Your task to perform on an android device: Search for Italian restaurants on Maps Image 0: 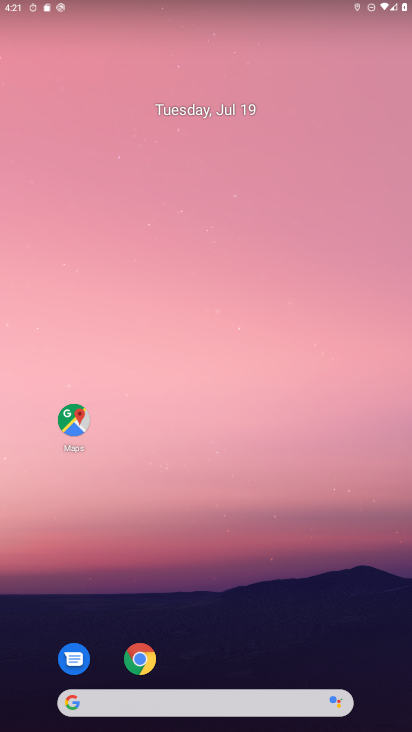
Step 0: drag from (253, 577) to (277, 7)
Your task to perform on an android device: Search for Italian restaurants on Maps Image 1: 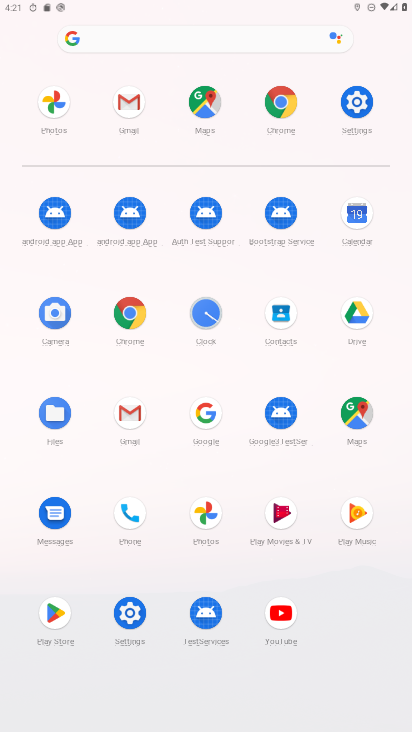
Step 1: click (360, 424)
Your task to perform on an android device: Search for Italian restaurants on Maps Image 2: 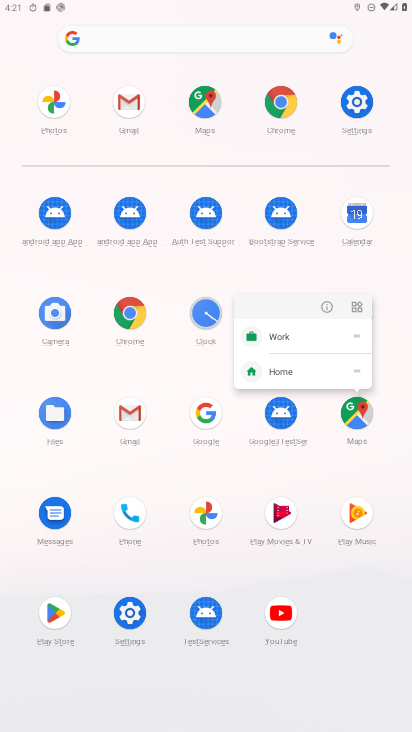
Step 2: click (360, 423)
Your task to perform on an android device: Search for Italian restaurants on Maps Image 3: 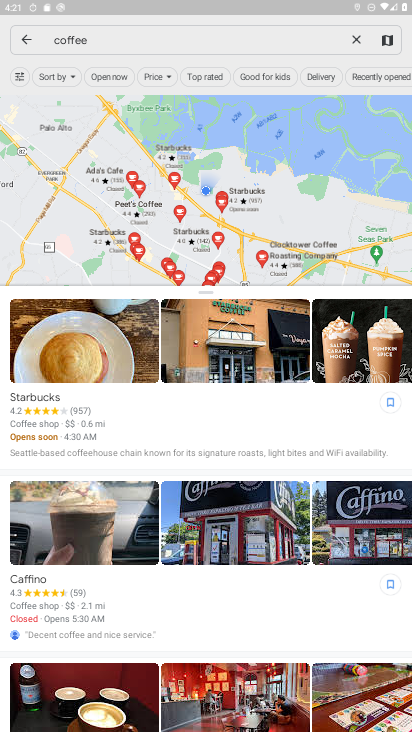
Step 3: click (359, 41)
Your task to perform on an android device: Search for Italian restaurants on Maps Image 4: 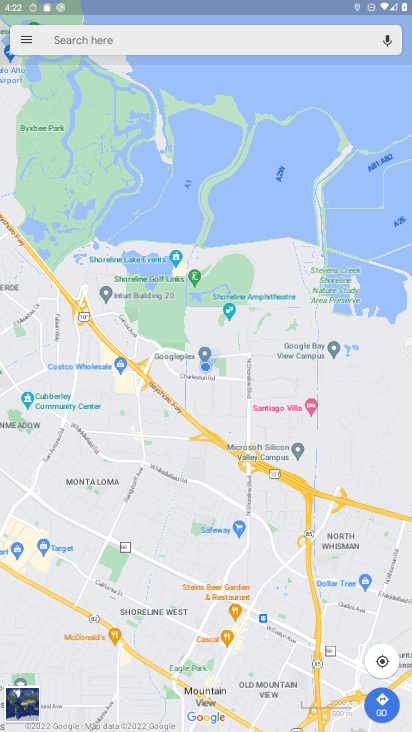
Step 4: click (219, 36)
Your task to perform on an android device: Search for Italian restaurants on Maps Image 5: 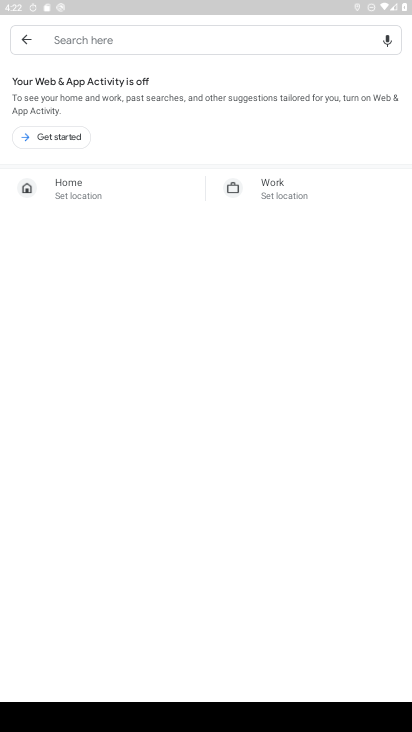
Step 5: type "Italian"
Your task to perform on an android device: Search for Italian restaurants on Maps Image 6: 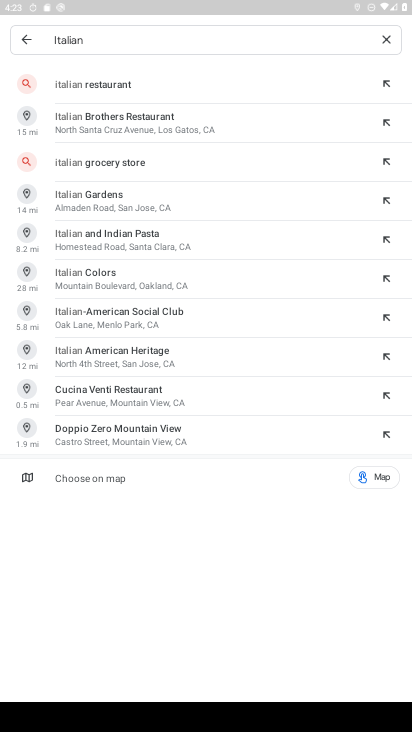
Step 6: click (147, 89)
Your task to perform on an android device: Search for Italian restaurants on Maps Image 7: 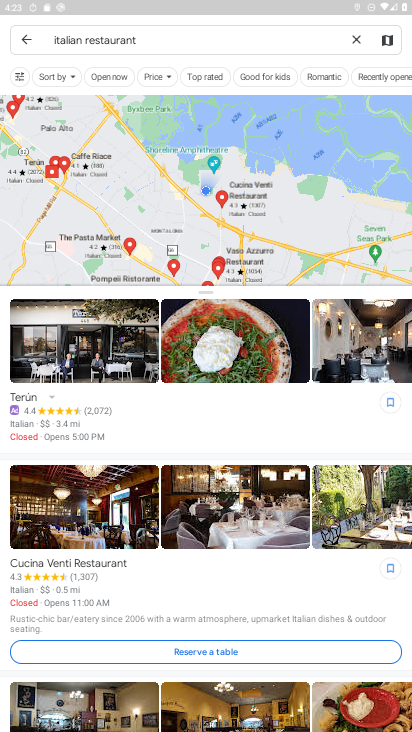
Step 7: task complete